Your task to perform on an android device: set an alarm Image 0: 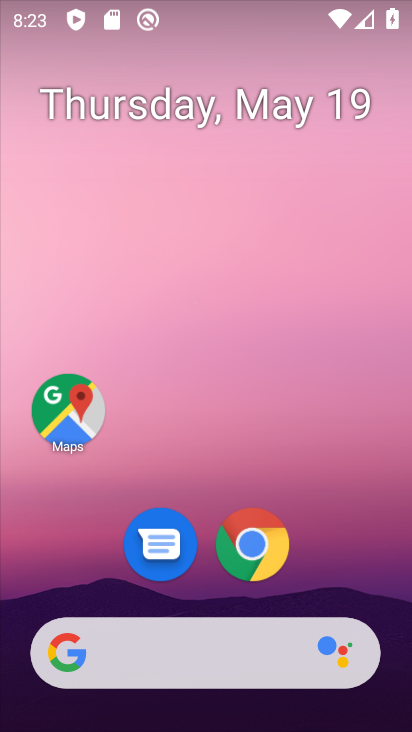
Step 0: drag from (402, 626) to (312, 28)
Your task to perform on an android device: set an alarm Image 1: 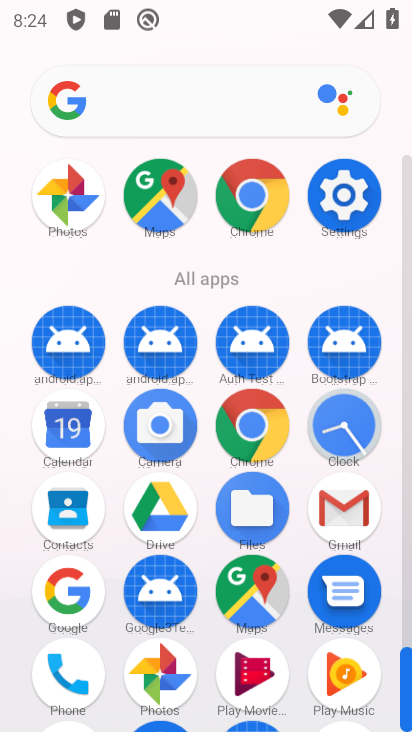
Step 1: click (341, 421)
Your task to perform on an android device: set an alarm Image 2: 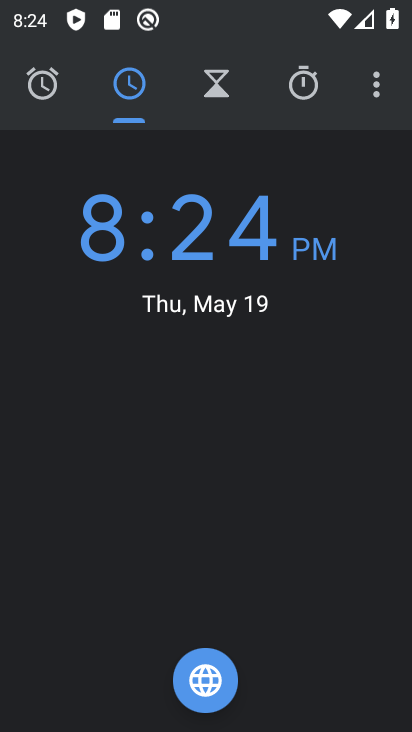
Step 2: click (52, 94)
Your task to perform on an android device: set an alarm Image 3: 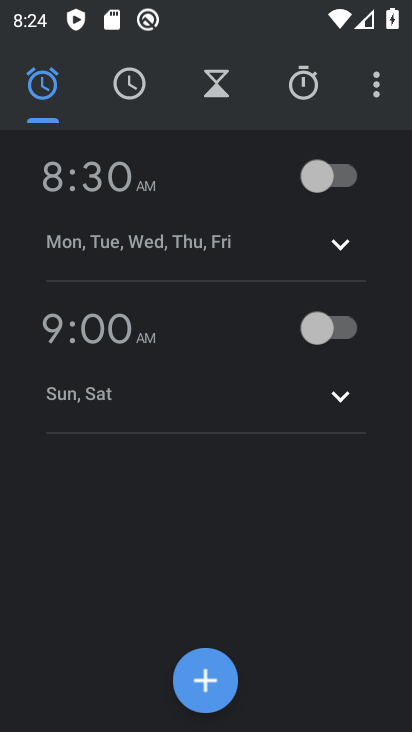
Step 3: click (335, 176)
Your task to perform on an android device: set an alarm Image 4: 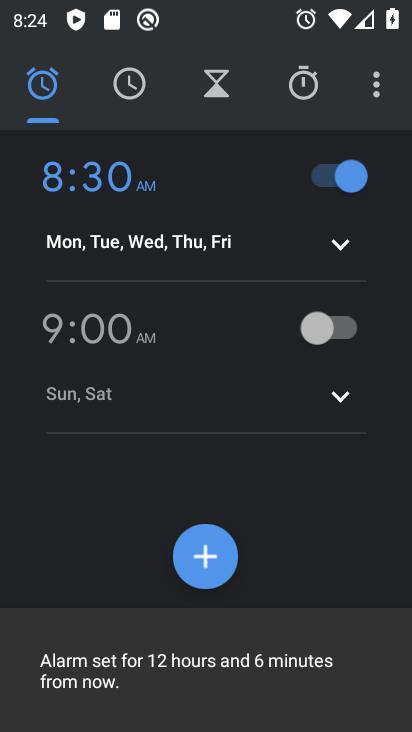
Step 4: task complete